Your task to perform on an android device: Open Google Chrome Image 0: 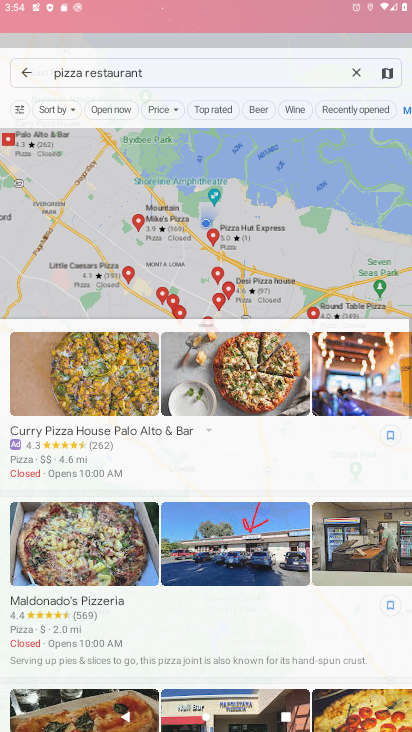
Step 0: click (134, 631)
Your task to perform on an android device: Open Google Chrome Image 1: 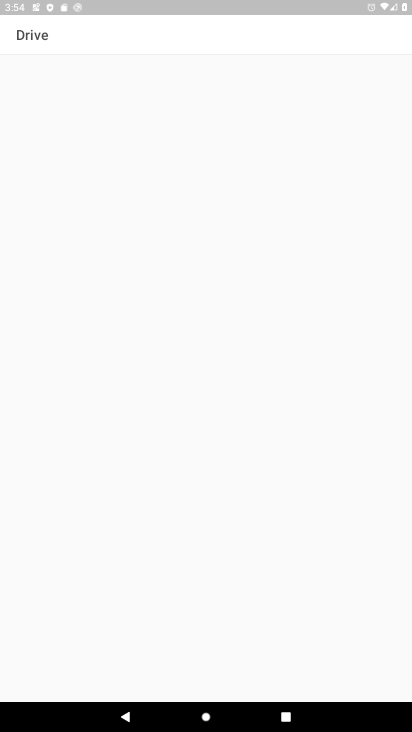
Step 1: press home button
Your task to perform on an android device: Open Google Chrome Image 2: 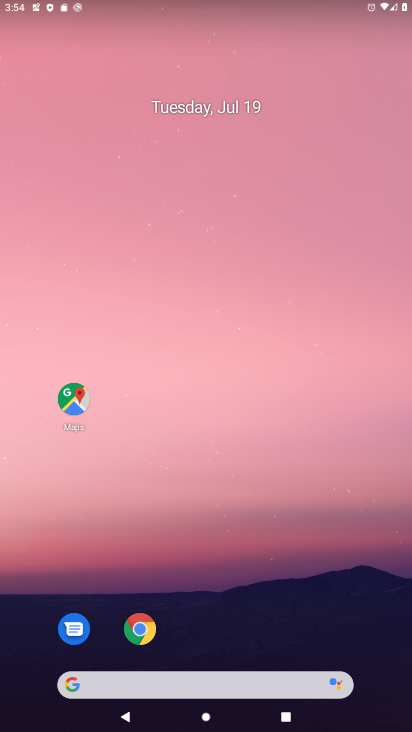
Step 2: click (136, 634)
Your task to perform on an android device: Open Google Chrome Image 3: 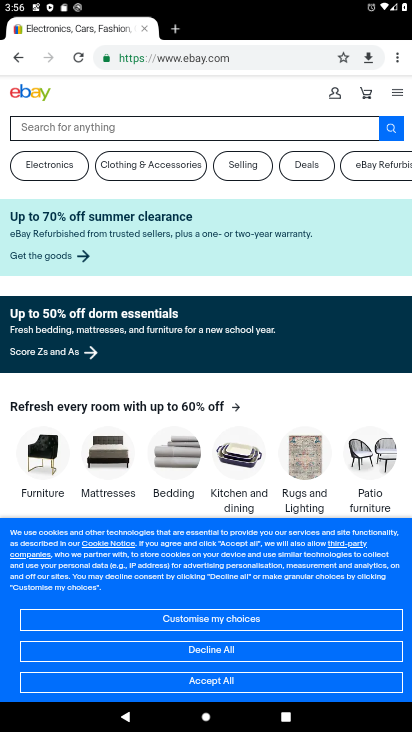
Step 3: task complete